Your task to perform on an android device: Go to display settings Image 0: 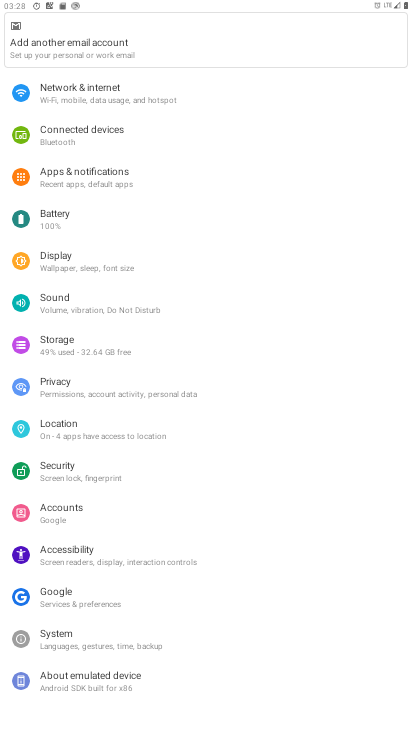
Step 0: press home button
Your task to perform on an android device: Go to display settings Image 1: 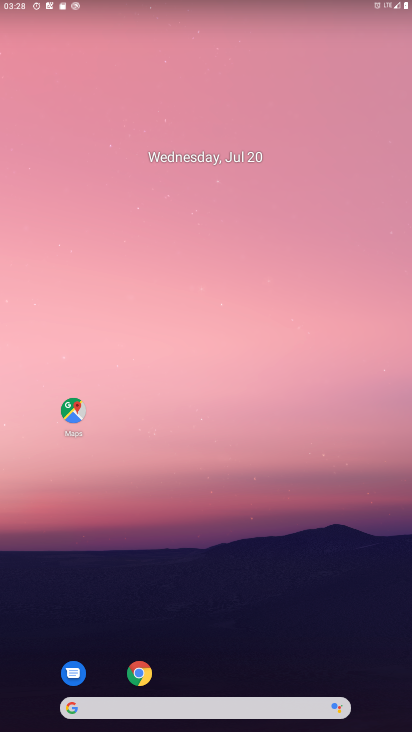
Step 1: drag from (239, 615) to (259, 4)
Your task to perform on an android device: Go to display settings Image 2: 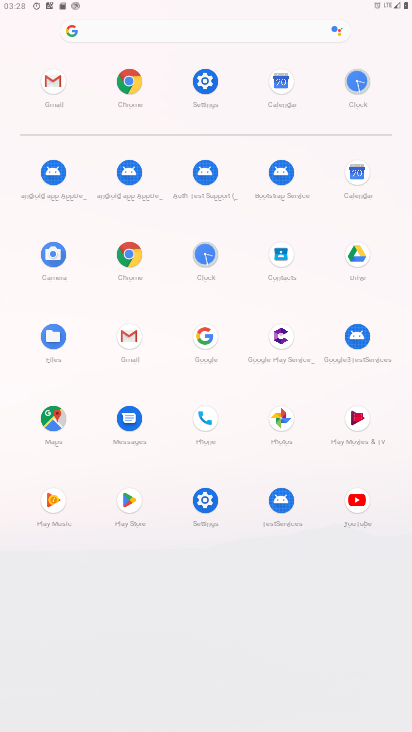
Step 2: click (206, 498)
Your task to perform on an android device: Go to display settings Image 3: 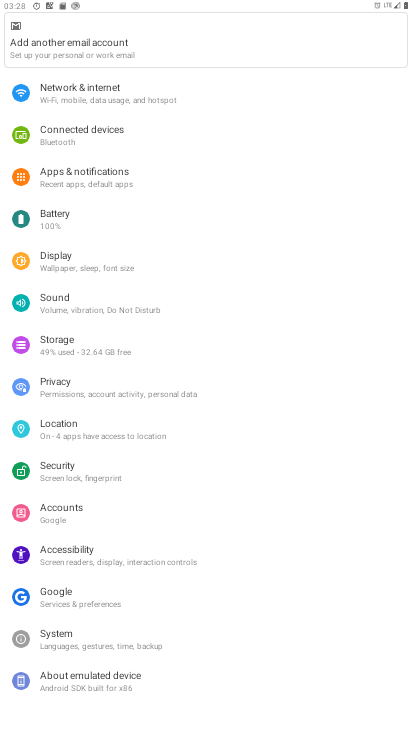
Step 3: click (82, 255)
Your task to perform on an android device: Go to display settings Image 4: 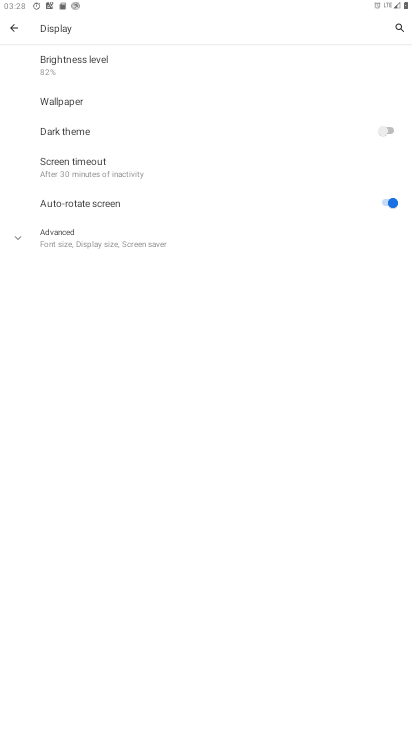
Step 4: task complete